Your task to perform on an android device: Go to notification settings Image 0: 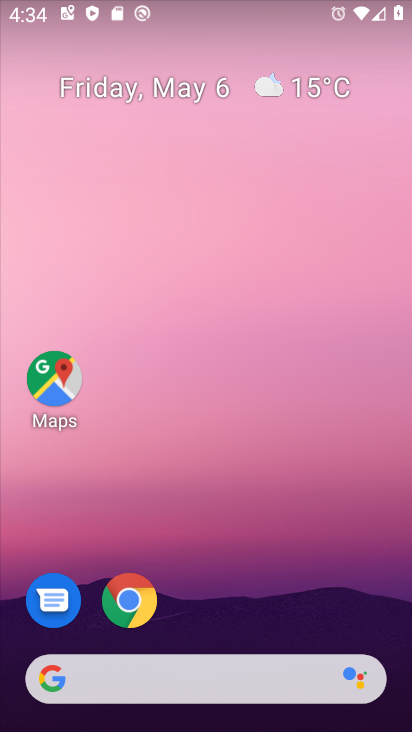
Step 0: drag from (199, 610) to (319, 19)
Your task to perform on an android device: Go to notification settings Image 1: 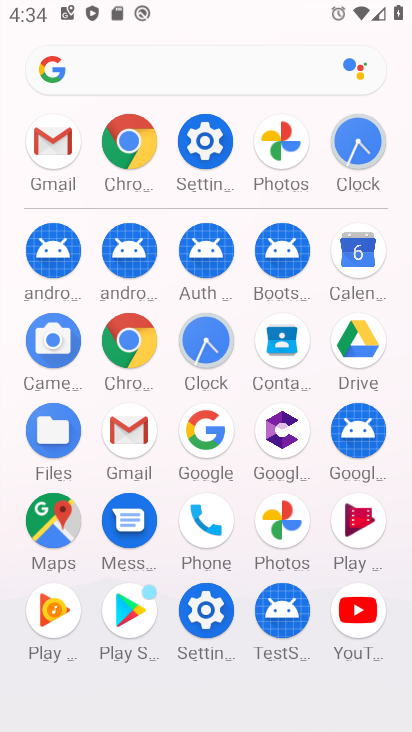
Step 1: click (213, 630)
Your task to perform on an android device: Go to notification settings Image 2: 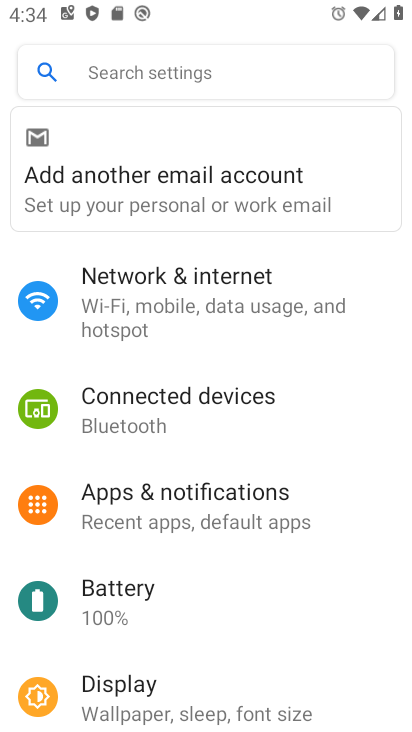
Step 2: click (169, 521)
Your task to perform on an android device: Go to notification settings Image 3: 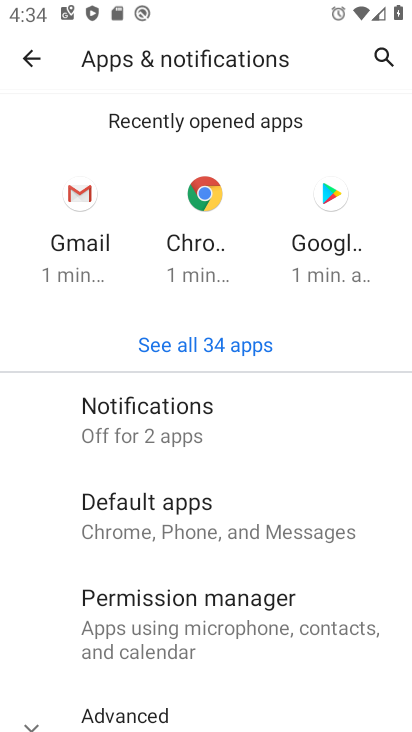
Step 3: drag from (160, 533) to (183, 315)
Your task to perform on an android device: Go to notification settings Image 4: 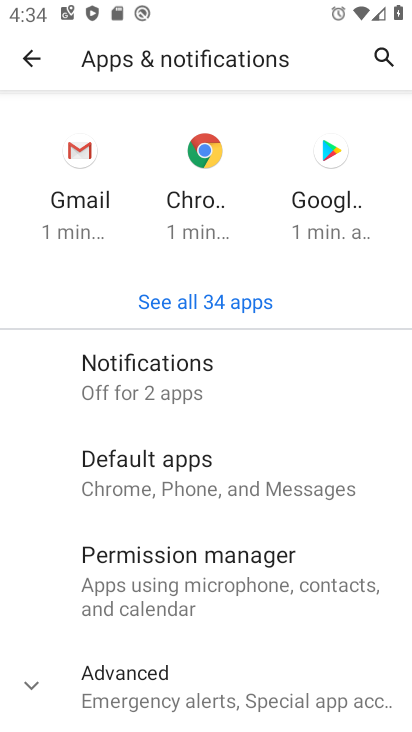
Step 4: click (164, 395)
Your task to perform on an android device: Go to notification settings Image 5: 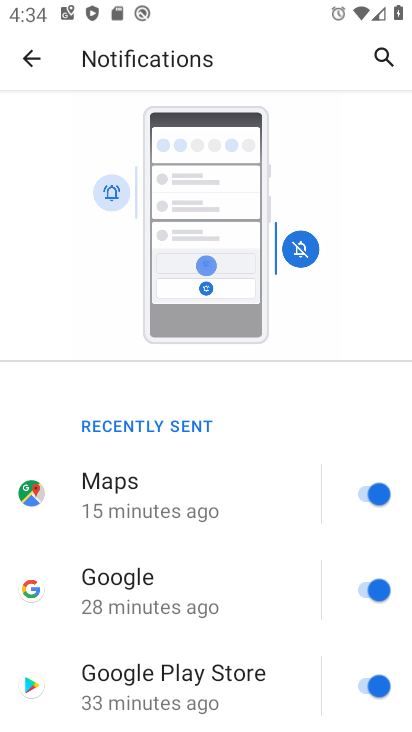
Step 5: task complete